Your task to perform on an android device: refresh tabs in the chrome app Image 0: 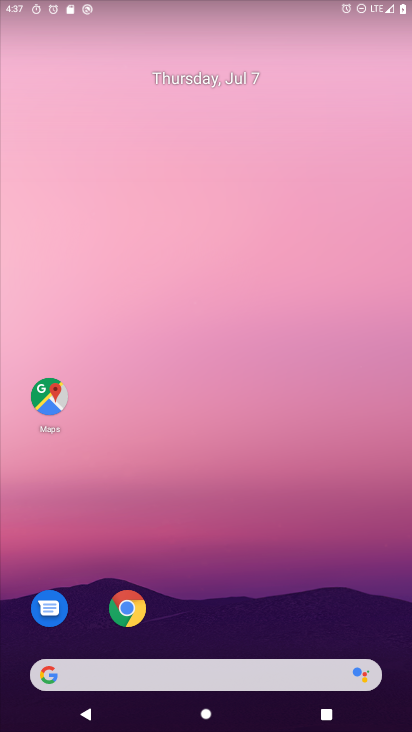
Step 0: click (126, 610)
Your task to perform on an android device: refresh tabs in the chrome app Image 1: 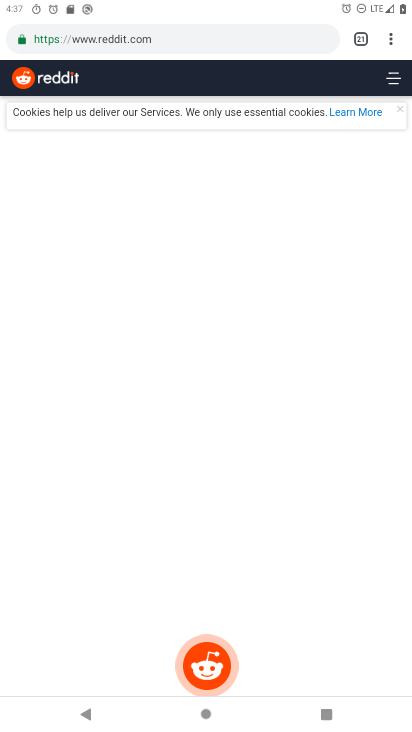
Step 1: click (393, 44)
Your task to perform on an android device: refresh tabs in the chrome app Image 2: 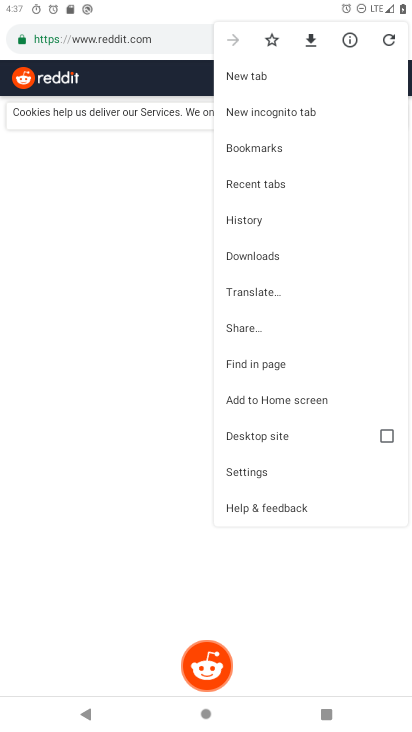
Step 2: click (388, 36)
Your task to perform on an android device: refresh tabs in the chrome app Image 3: 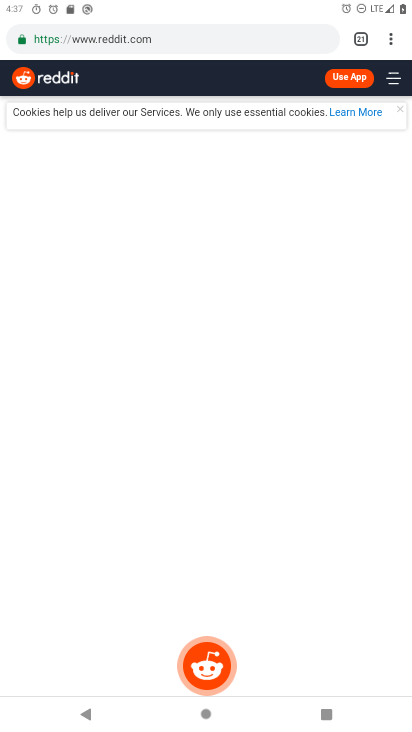
Step 3: task complete